Your task to perform on an android device: Go to battery settings Image 0: 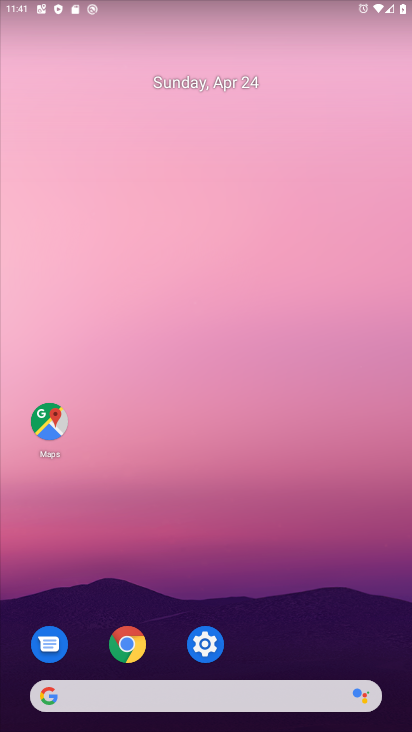
Step 0: drag from (286, 703) to (61, 0)
Your task to perform on an android device: Go to battery settings Image 1: 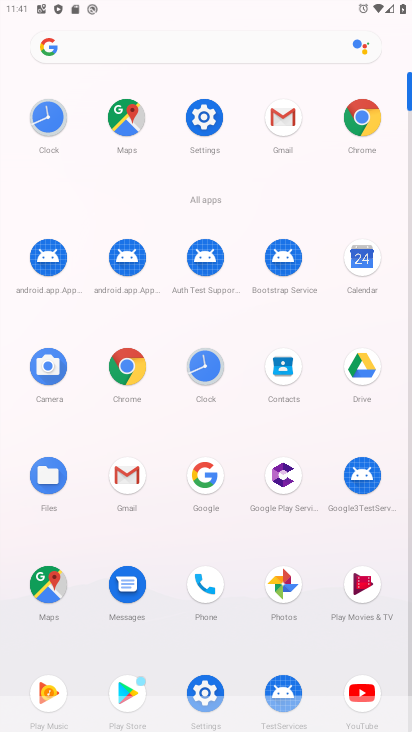
Step 1: click (193, 119)
Your task to perform on an android device: Go to battery settings Image 2: 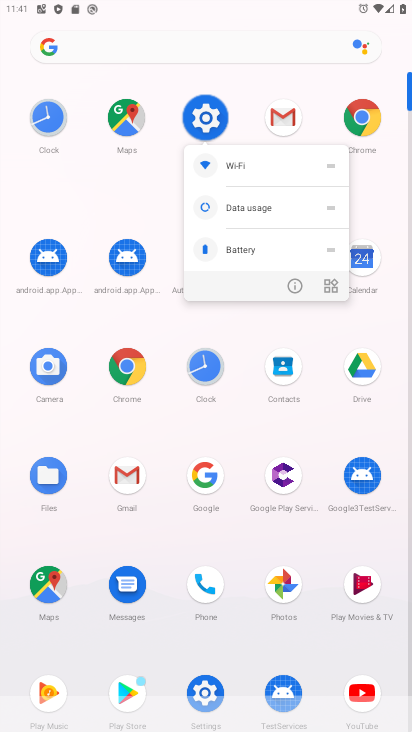
Step 2: click (195, 120)
Your task to perform on an android device: Go to battery settings Image 3: 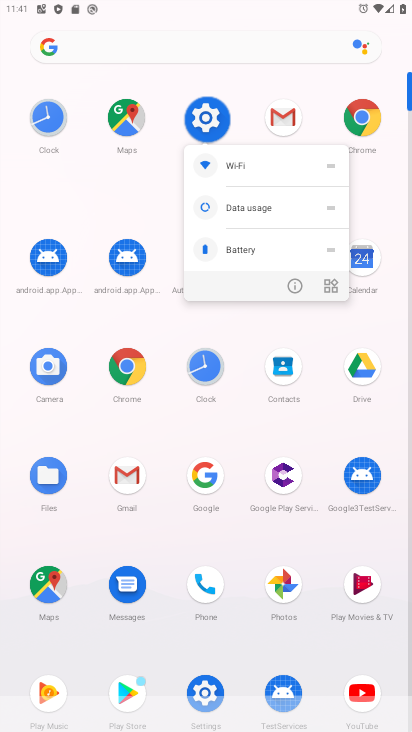
Step 3: click (197, 122)
Your task to perform on an android device: Go to battery settings Image 4: 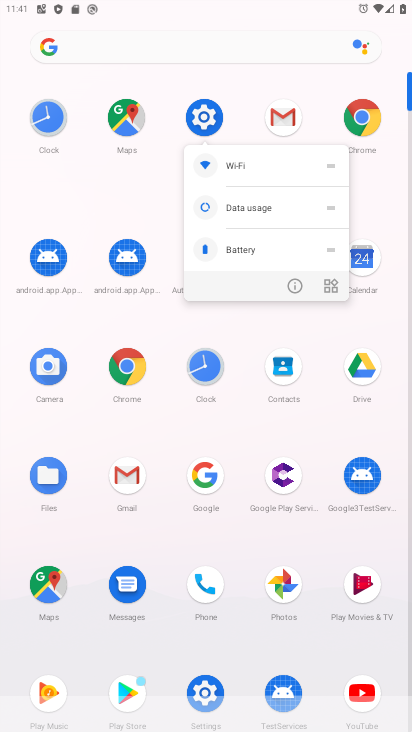
Step 4: click (195, 125)
Your task to perform on an android device: Go to battery settings Image 5: 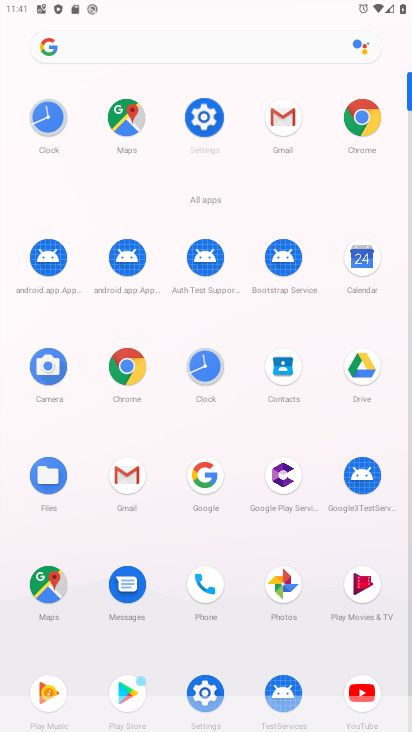
Step 5: click (195, 125)
Your task to perform on an android device: Go to battery settings Image 6: 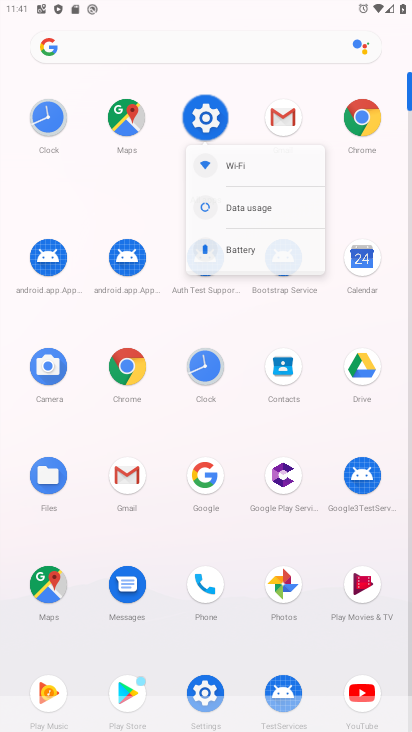
Step 6: click (196, 126)
Your task to perform on an android device: Go to battery settings Image 7: 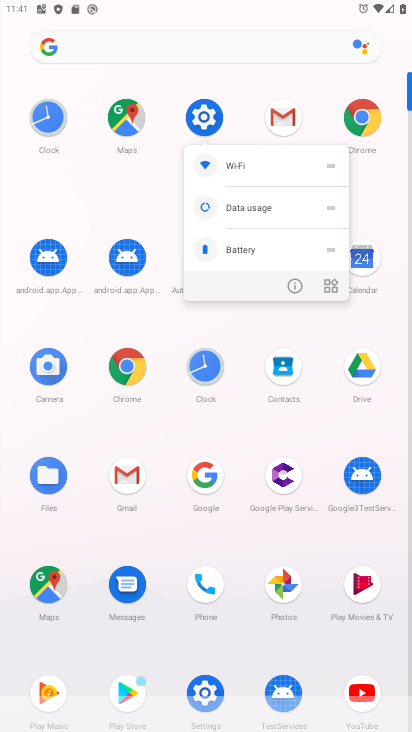
Step 7: click (197, 108)
Your task to perform on an android device: Go to battery settings Image 8: 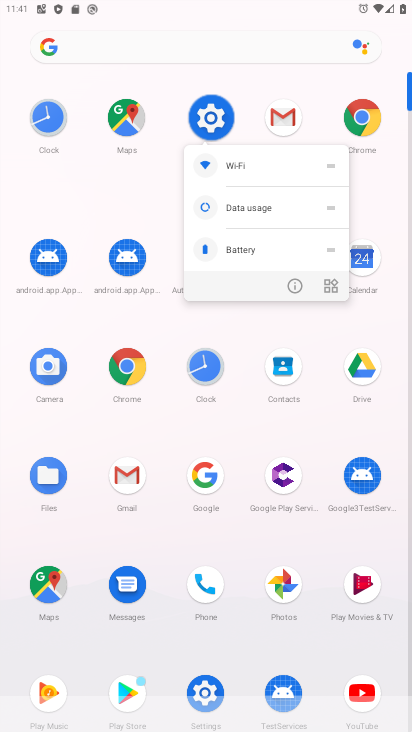
Step 8: click (206, 116)
Your task to perform on an android device: Go to battery settings Image 9: 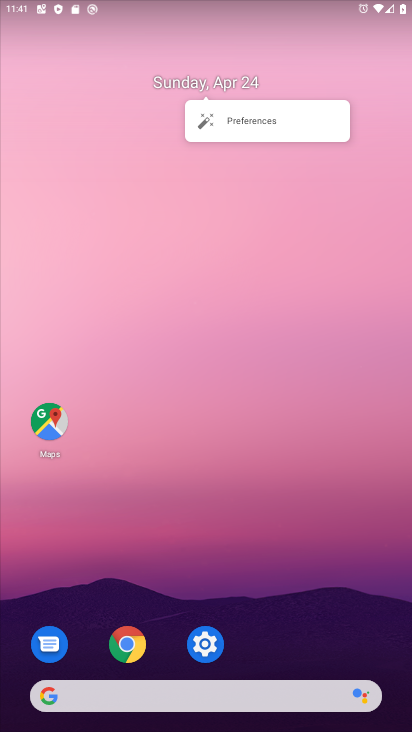
Step 9: drag from (268, 627) to (148, 13)
Your task to perform on an android device: Go to battery settings Image 10: 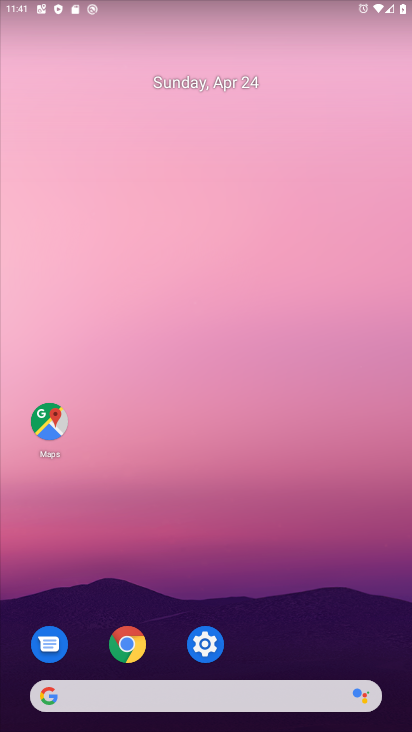
Step 10: drag from (112, 62) to (147, 16)
Your task to perform on an android device: Go to battery settings Image 11: 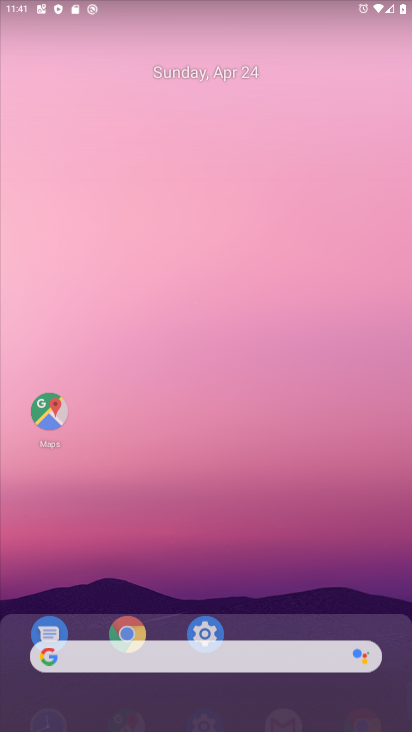
Step 11: drag from (263, 523) to (30, 18)
Your task to perform on an android device: Go to battery settings Image 12: 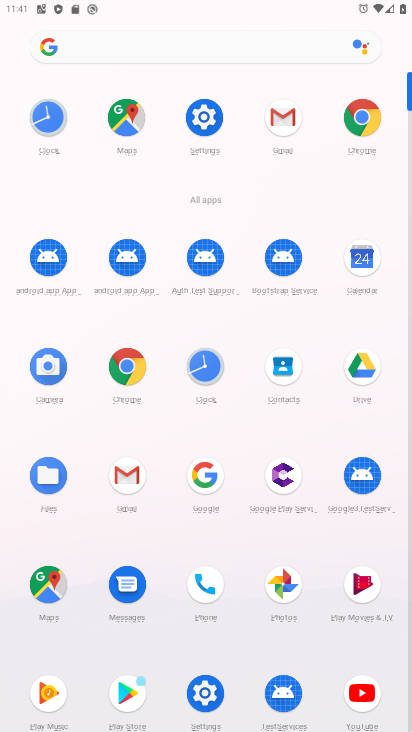
Step 12: click (195, 259)
Your task to perform on an android device: Go to battery settings Image 13: 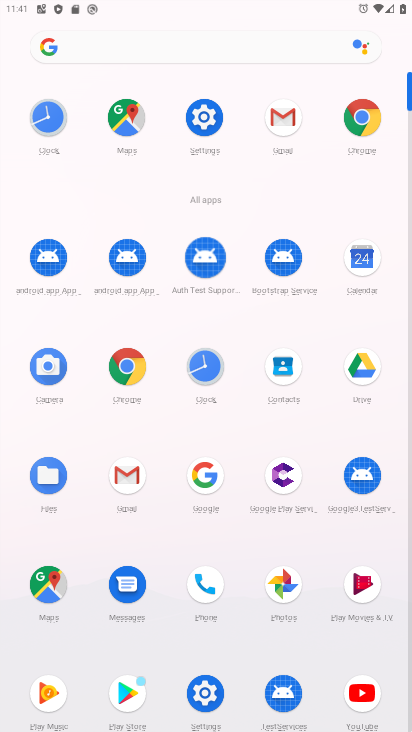
Step 13: click (196, 124)
Your task to perform on an android device: Go to battery settings Image 14: 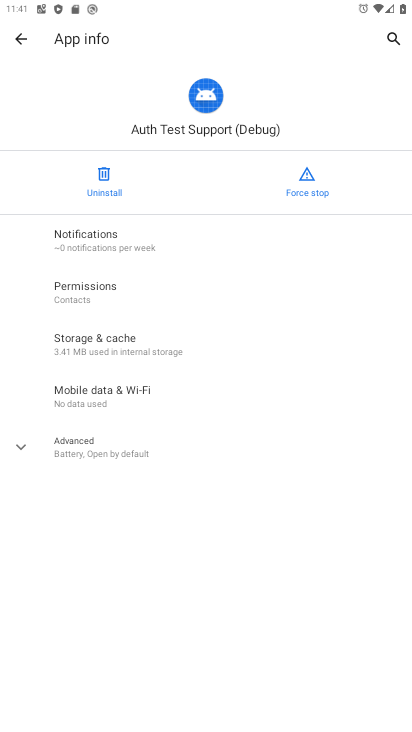
Step 14: click (196, 120)
Your task to perform on an android device: Go to battery settings Image 15: 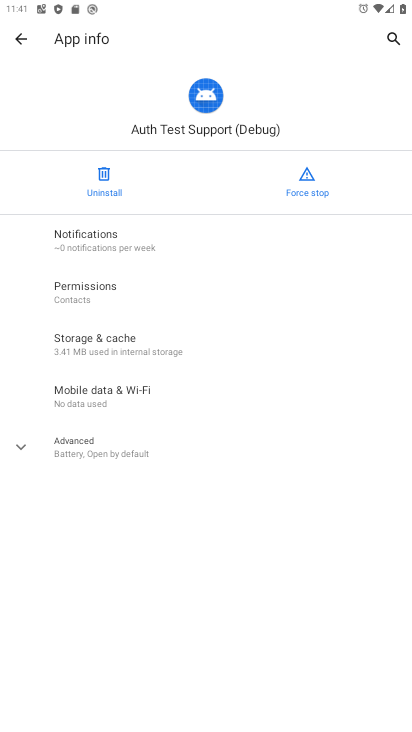
Step 15: click (10, 26)
Your task to perform on an android device: Go to battery settings Image 16: 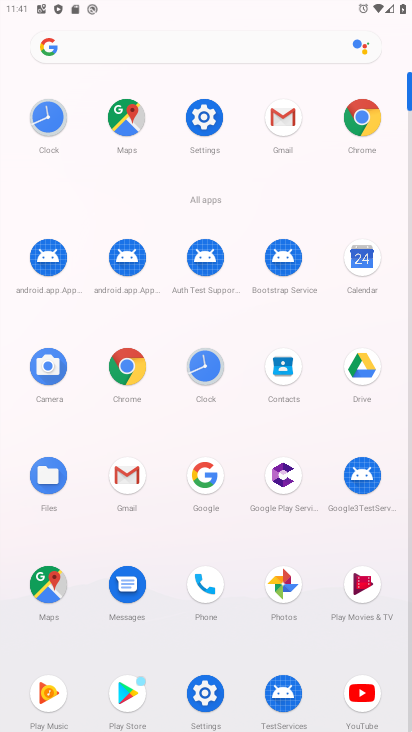
Step 16: click (203, 111)
Your task to perform on an android device: Go to battery settings Image 17: 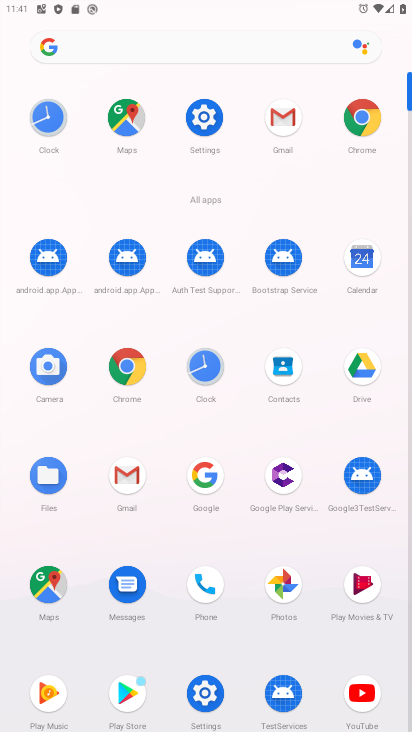
Step 17: click (204, 112)
Your task to perform on an android device: Go to battery settings Image 18: 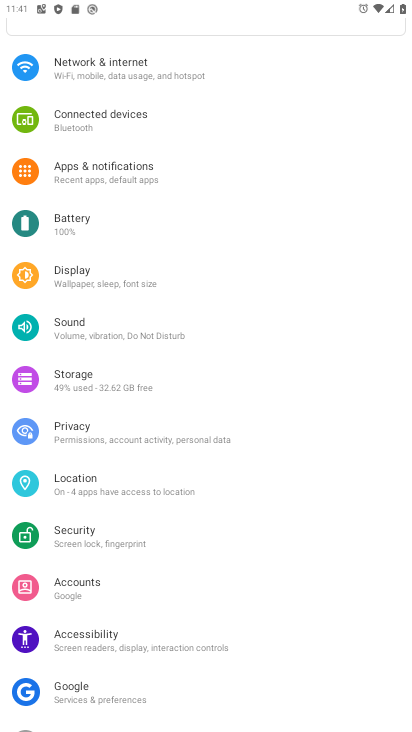
Step 18: click (79, 222)
Your task to perform on an android device: Go to battery settings Image 19: 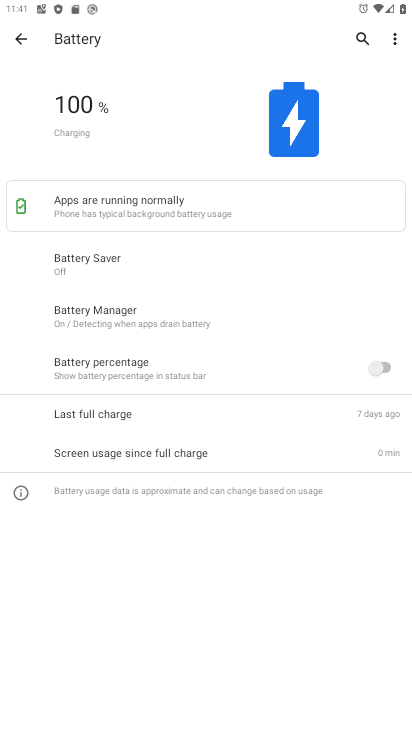
Step 19: task complete